Your task to perform on an android device: open chrome and create a bookmark for the current page Image 0: 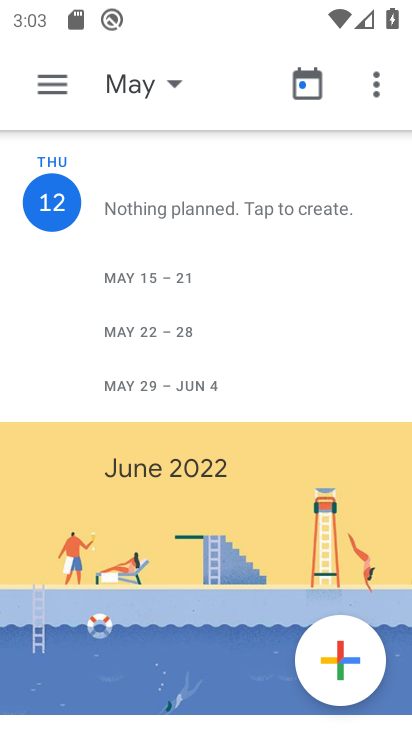
Step 0: press home button
Your task to perform on an android device: open chrome and create a bookmark for the current page Image 1: 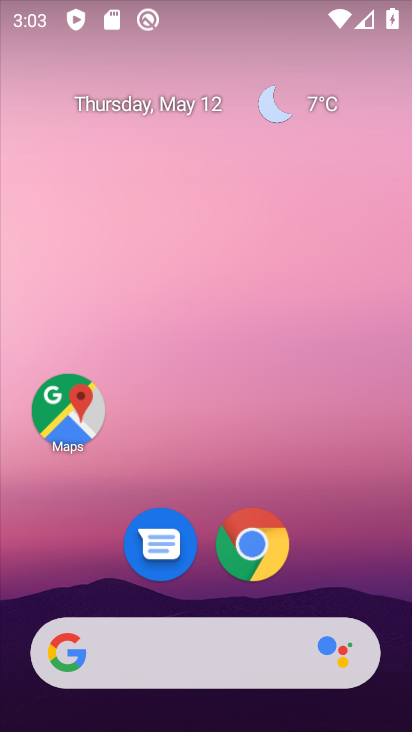
Step 1: click (242, 546)
Your task to perform on an android device: open chrome and create a bookmark for the current page Image 2: 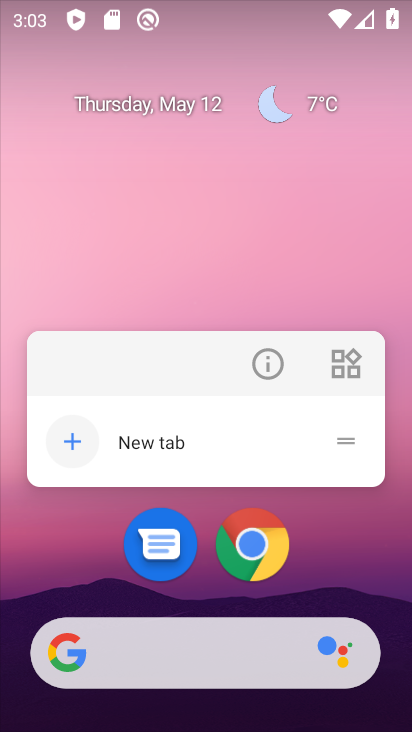
Step 2: click (249, 541)
Your task to perform on an android device: open chrome and create a bookmark for the current page Image 3: 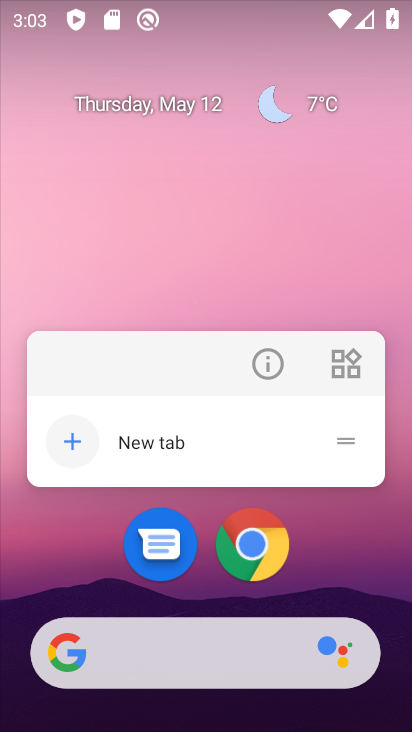
Step 3: click (250, 540)
Your task to perform on an android device: open chrome and create a bookmark for the current page Image 4: 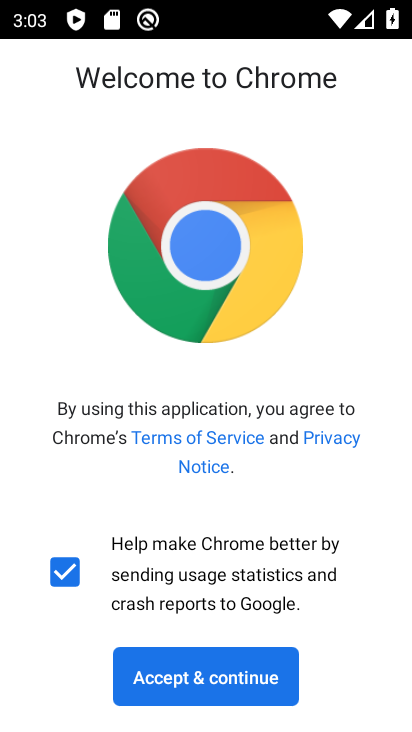
Step 4: click (167, 664)
Your task to perform on an android device: open chrome and create a bookmark for the current page Image 5: 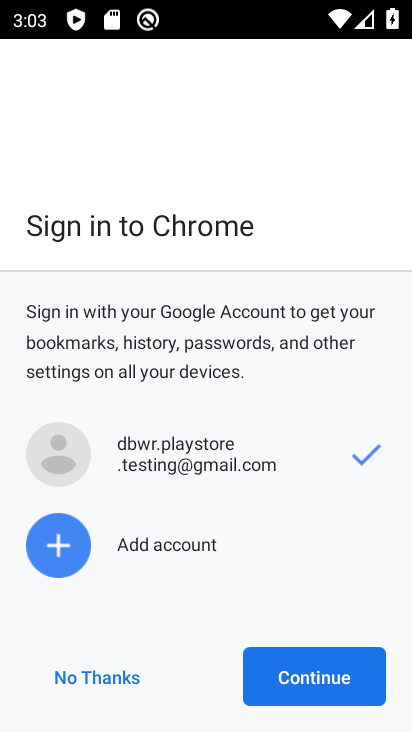
Step 5: click (257, 682)
Your task to perform on an android device: open chrome and create a bookmark for the current page Image 6: 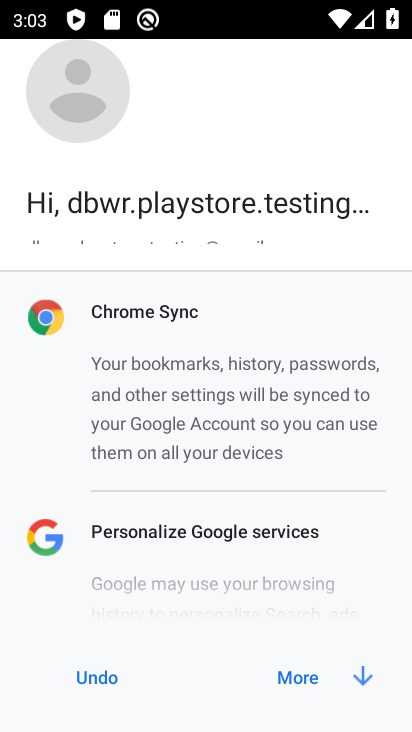
Step 6: click (301, 659)
Your task to perform on an android device: open chrome and create a bookmark for the current page Image 7: 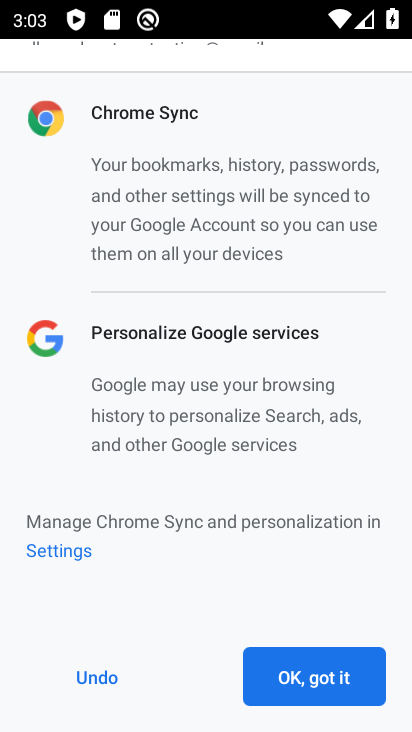
Step 7: click (302, 654)
Your task to perform on an android device: open chrome and create a bookmark for the current page Image 8: 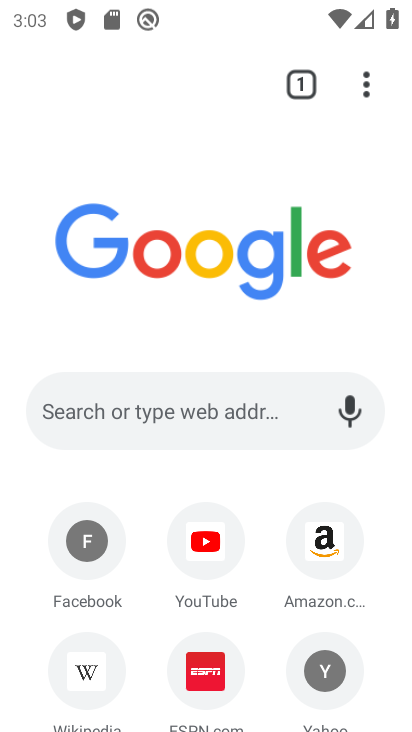
Step 8: click (372, 90)
Your task to perform on an android device: open chrome and create a bookmark for the current page Image 9: 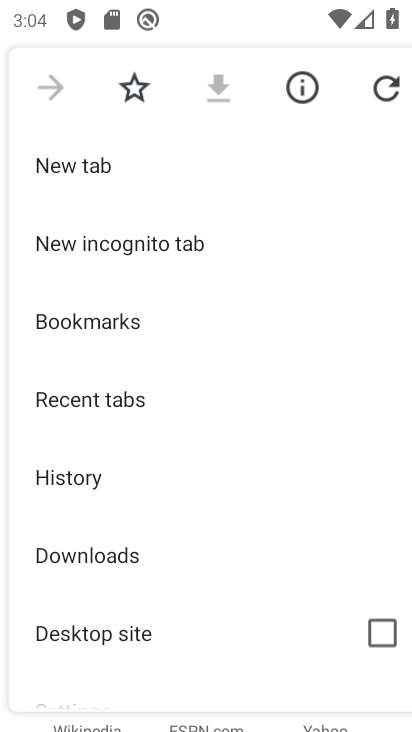
Step 9: click (113, 92)
Your task to perform on an android device: open chrome and create a bookmark for the current page Image 10: 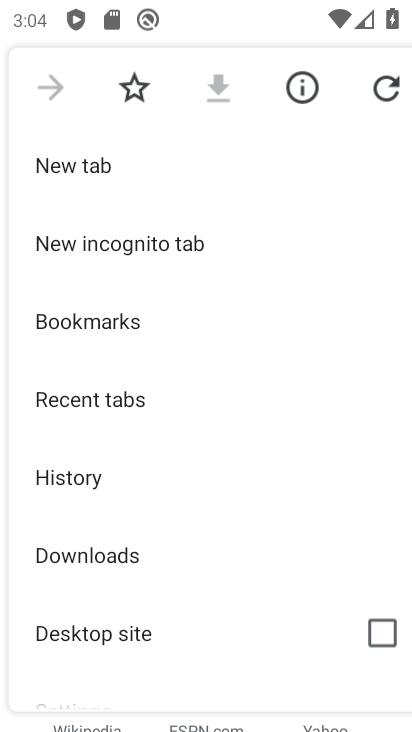
Step 10: click (127, 96)
Your task to perform on an android device: open chrome and create a bookmark for the current page Image 11: 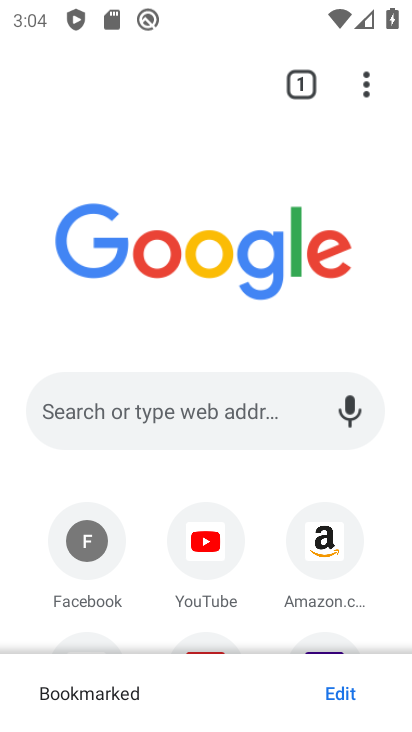
Step 11: task complete